Your task to perform on an android device: Go to wifi settings Image 0: 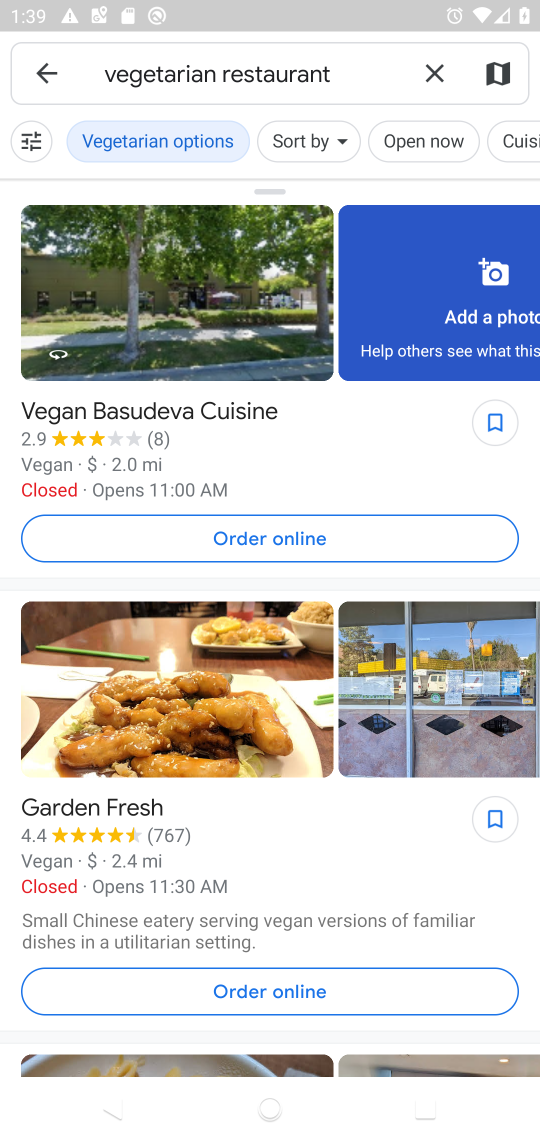
Step 0: press home button
Your task to perform on an android device: Go to wifi settings Image 1: 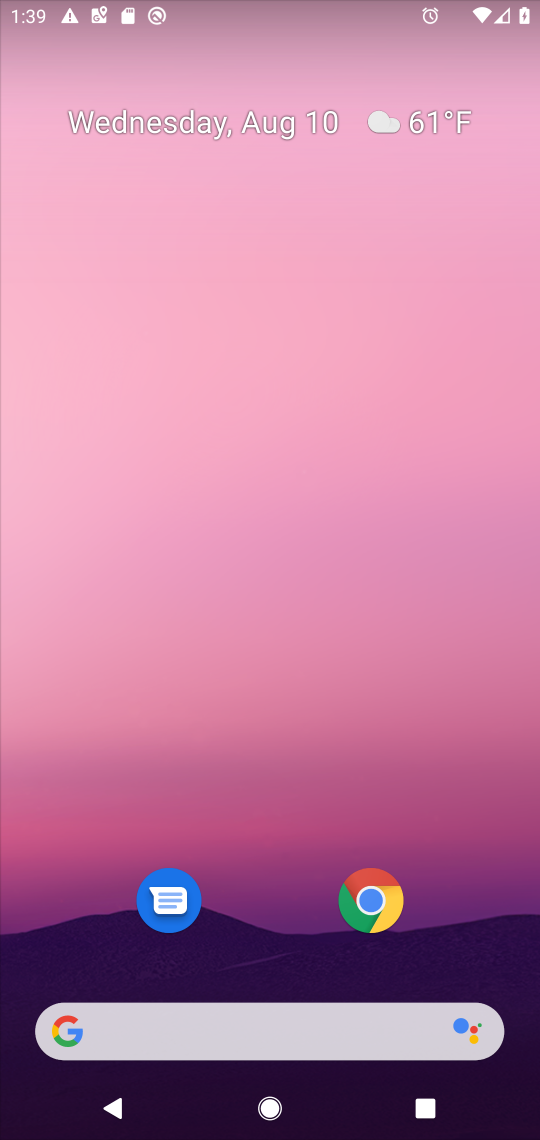
Step 1: drag from (278, 590) to (283, 11)
Your task to perform on an android device: Go to wifi settings Image 2: 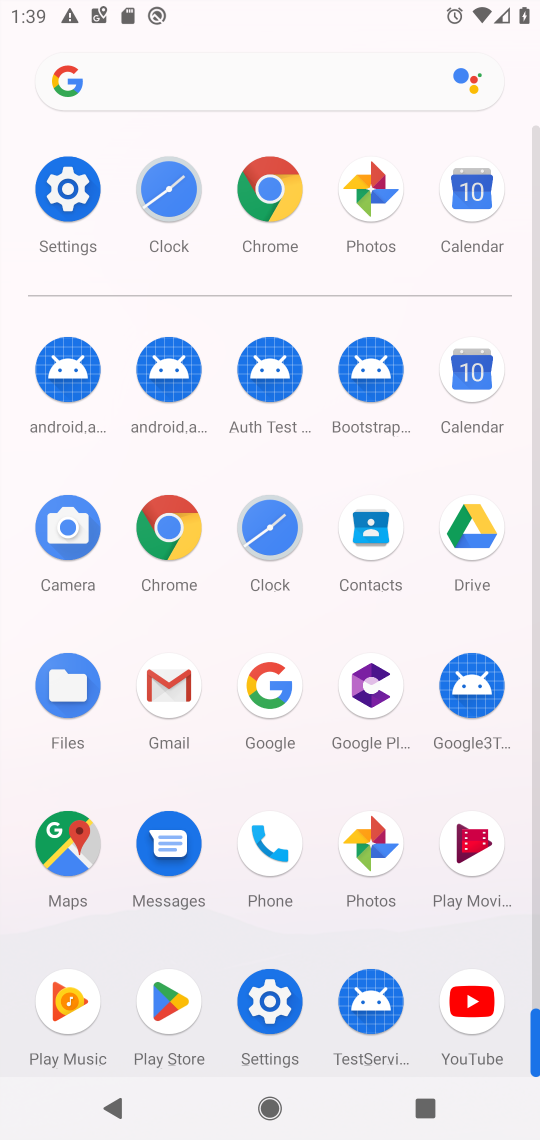
Step 2: click (69, 193)
Your task to perform on an android device: Go to wifi settings Image 3: 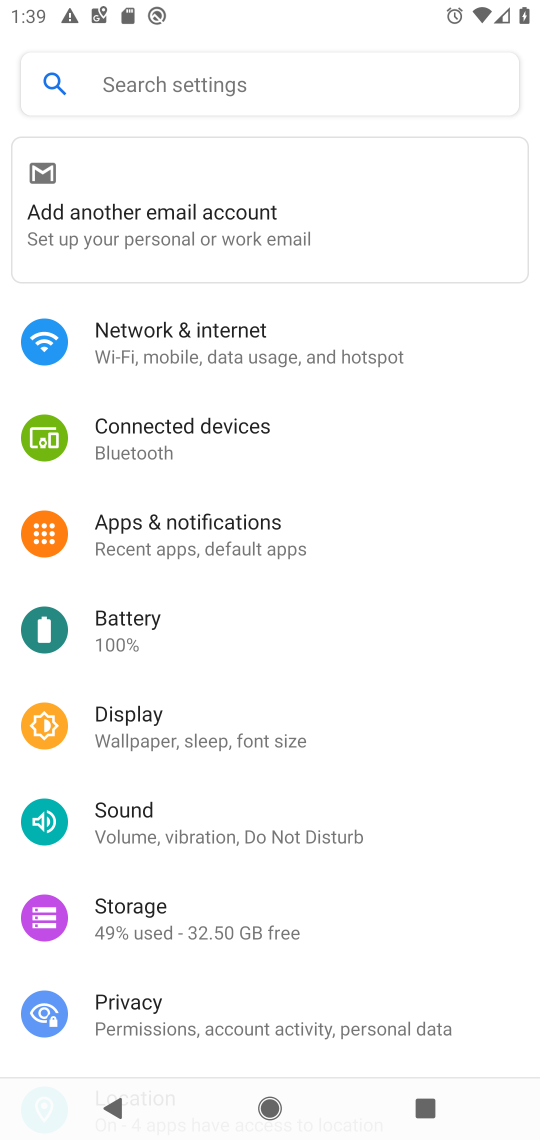
Step 3: click (172, 323)
Your task to perform on an android device: Go to wifi settings Image 4: 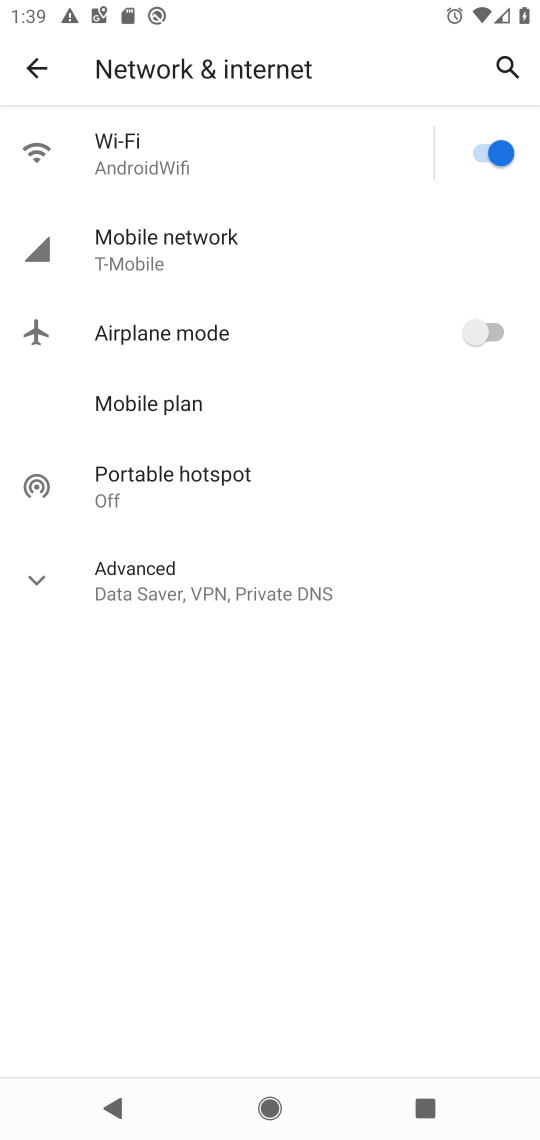
Step 4: click (120, 151)
Your task to perform on an android device: Go to wifi settings Image 5: 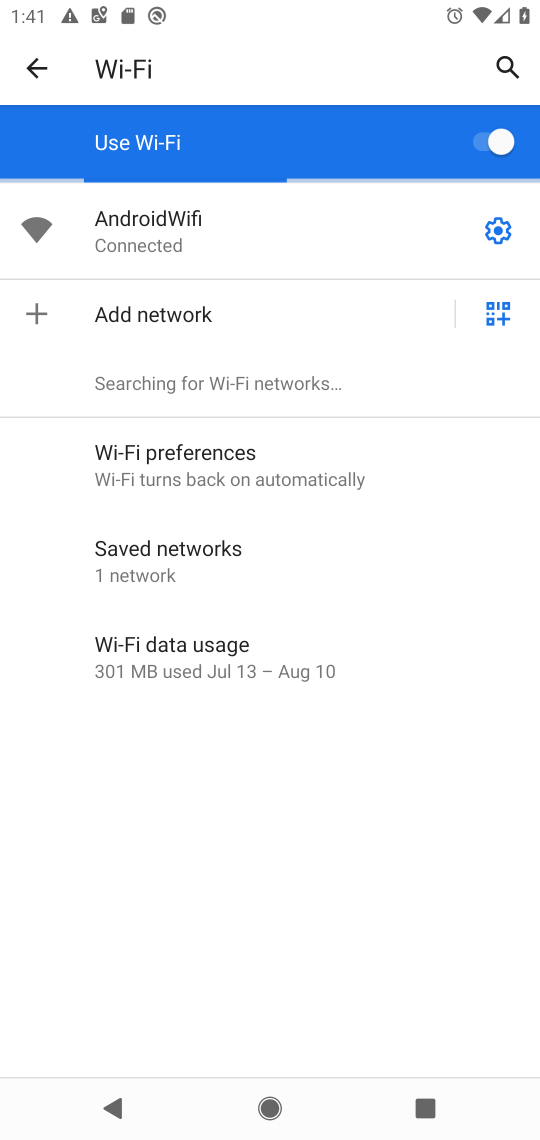
Step 5: task complete